Your task to perform on an android device: search for starred emails in the gmail app Image 0: 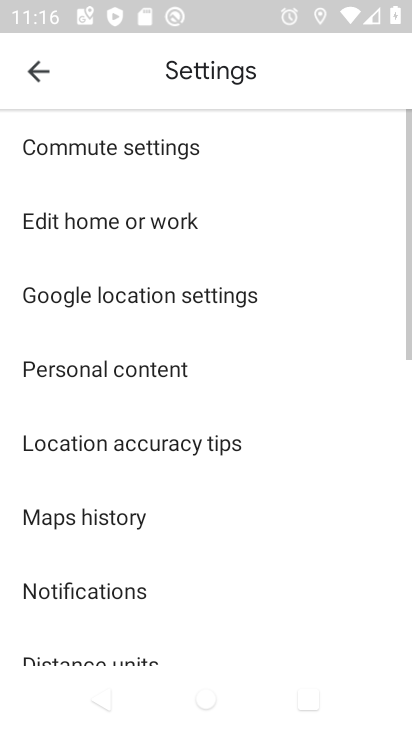
Step 0: press home button
Your task to perform on an android device: search for starred emails in the gmail app Image 1: 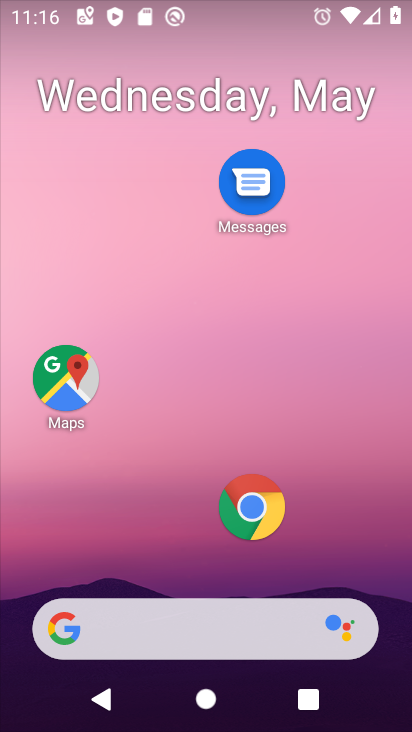
Step 1: drag from (186, 558) to (205, 51)
Your task to perform on an android device: search for starred emails in the gmail app Image 2: 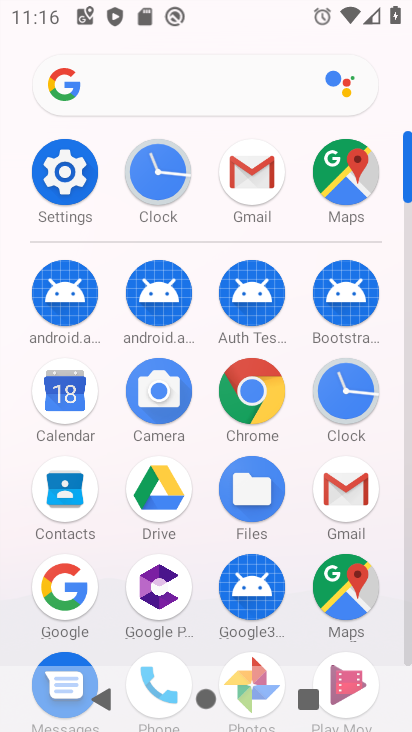
Step 2: click (345, 492)
Your task to perform on an android device: search for starred emails in the gmail app Image 3: 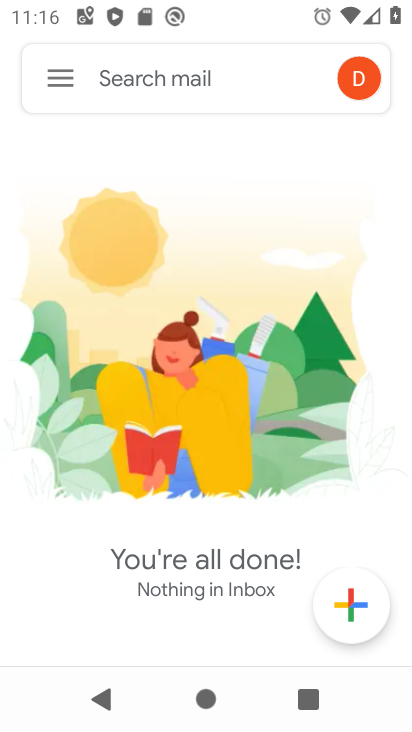
Step 3: click (56, 76)
Your task to perform on an android device: search for starred emails in the gmail app Image 4: 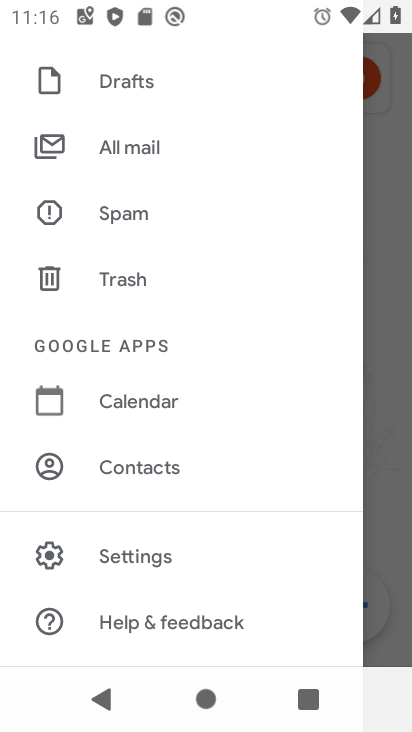
Step 4: drag from (153, 118) to (147, 388)
Your task to perform on an android device: search for starred emails in the gmail app Image 5: 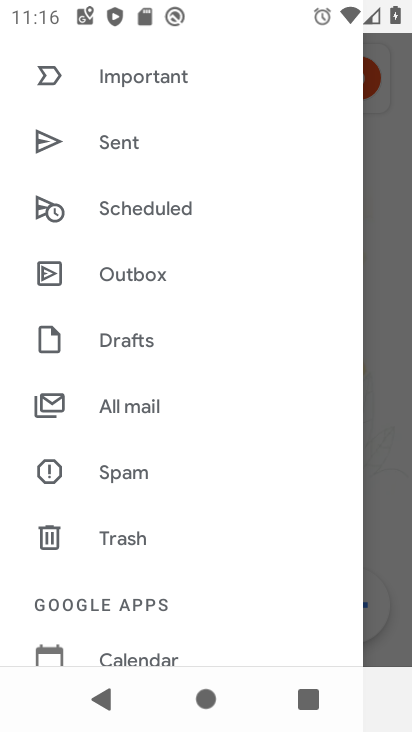
Step 5: drag from (156, 123) to (147, 490)
Your task to perform on an android device: search for starred emails in the gmail app Image 6: 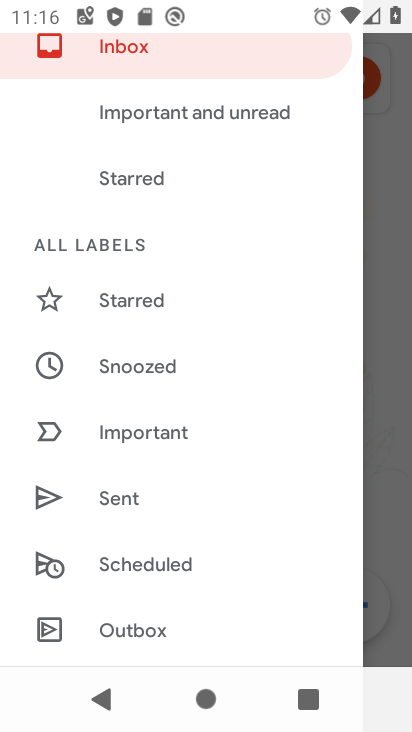
Step 6: click (120, 302)
Your task to perform on an android device: search for starred emails in the gmail app Image 7: 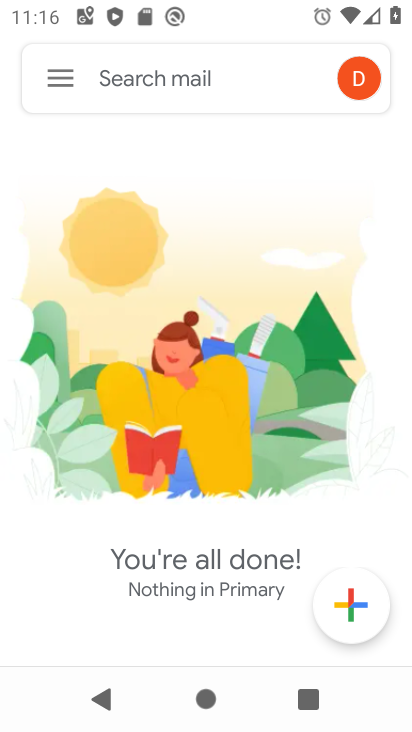
Step 7: click (53, 79)
Your task to perform on an android device: search for starred emails in the gmail app Image 8: 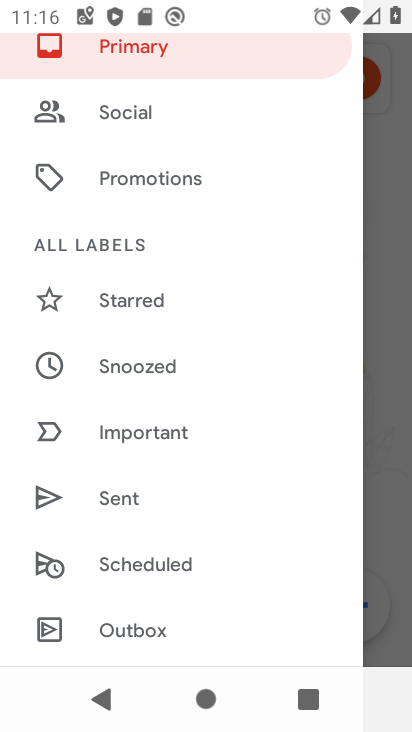
Step 8: click (143, 304)
Your task to perform on an android device: search for starred emails in the gmail app Image 9: 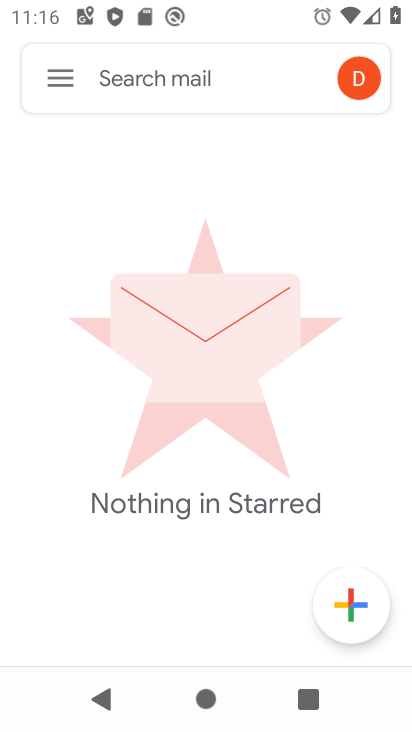
Step 9: task complete